Your task to perform on an android device: What's the latest video from Gameranx? Image 0: 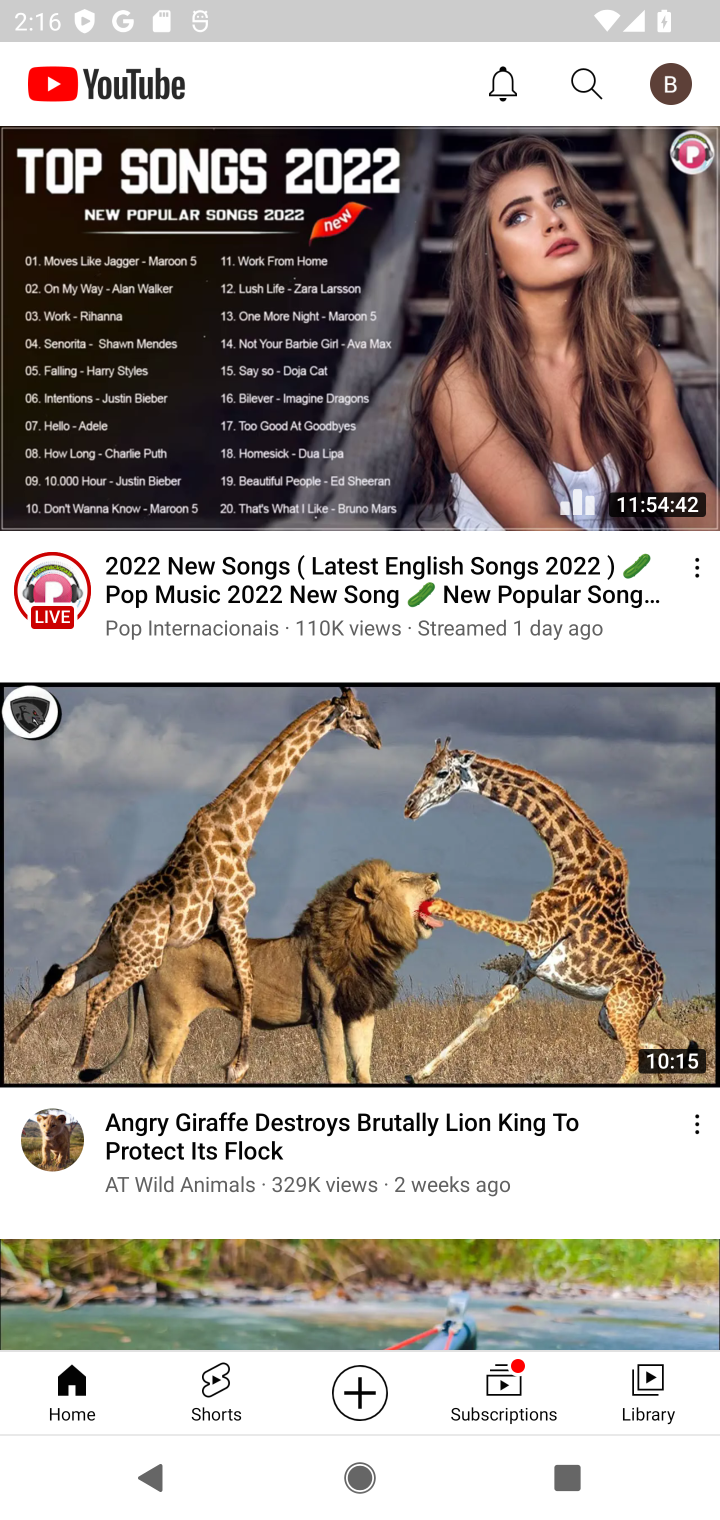
Step 0: click (586, 84)
Your task to perform on an android device: What's the latest video from Gameranx? Image 1: 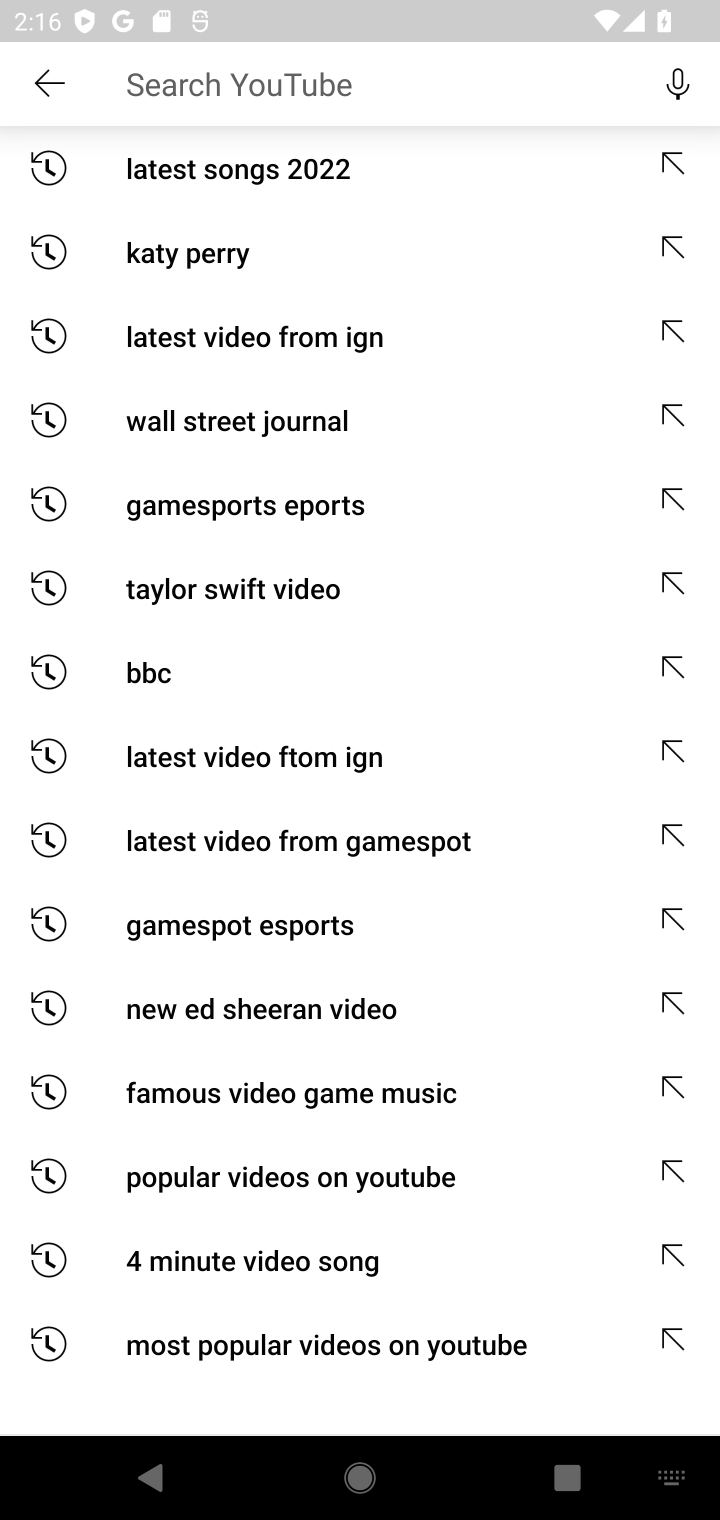
Step 1: click (203, 78)
Your task to perform on an android device: What's the latest video from Gameranx? Image 2: 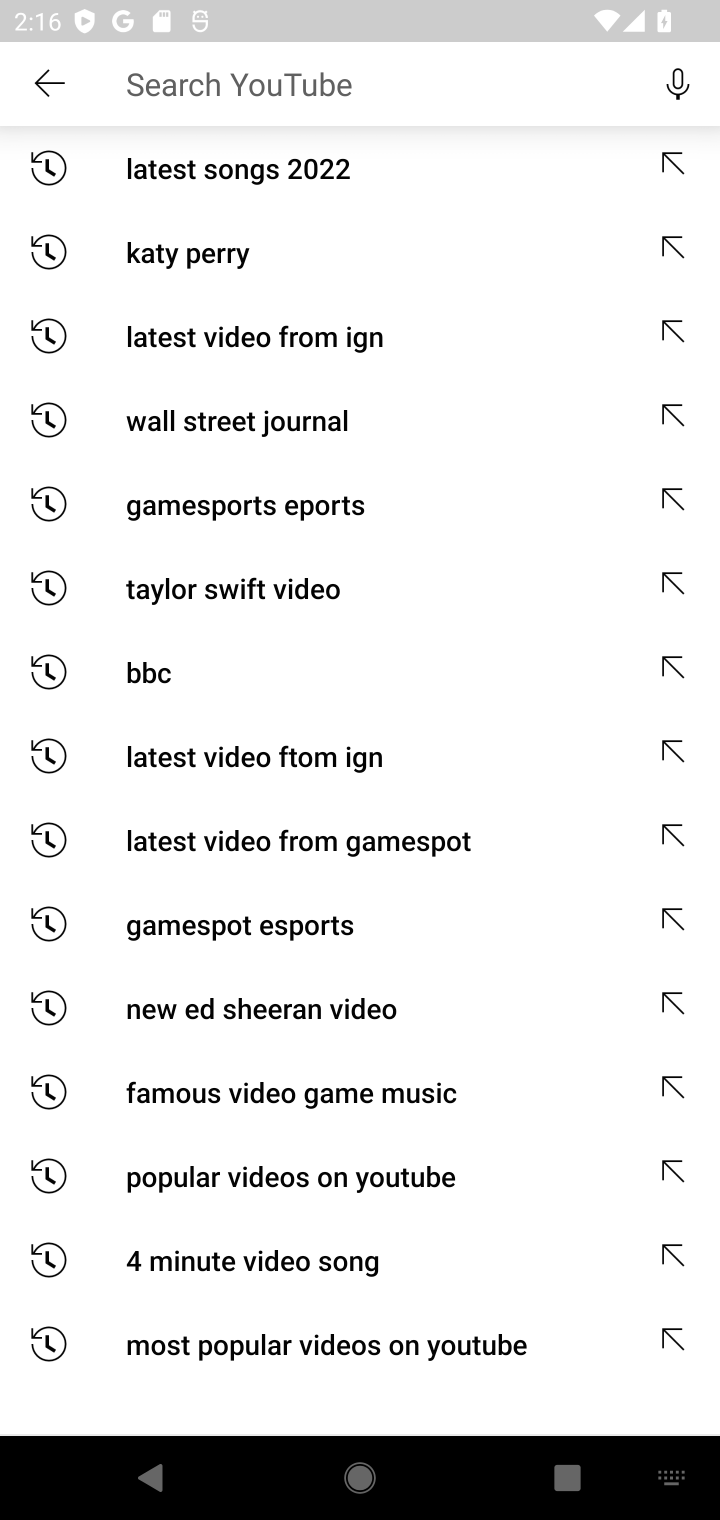
Step 2: type "Gameranx"
Your task to perform on an android device: What's the latest video from Gameranx? Image 3: 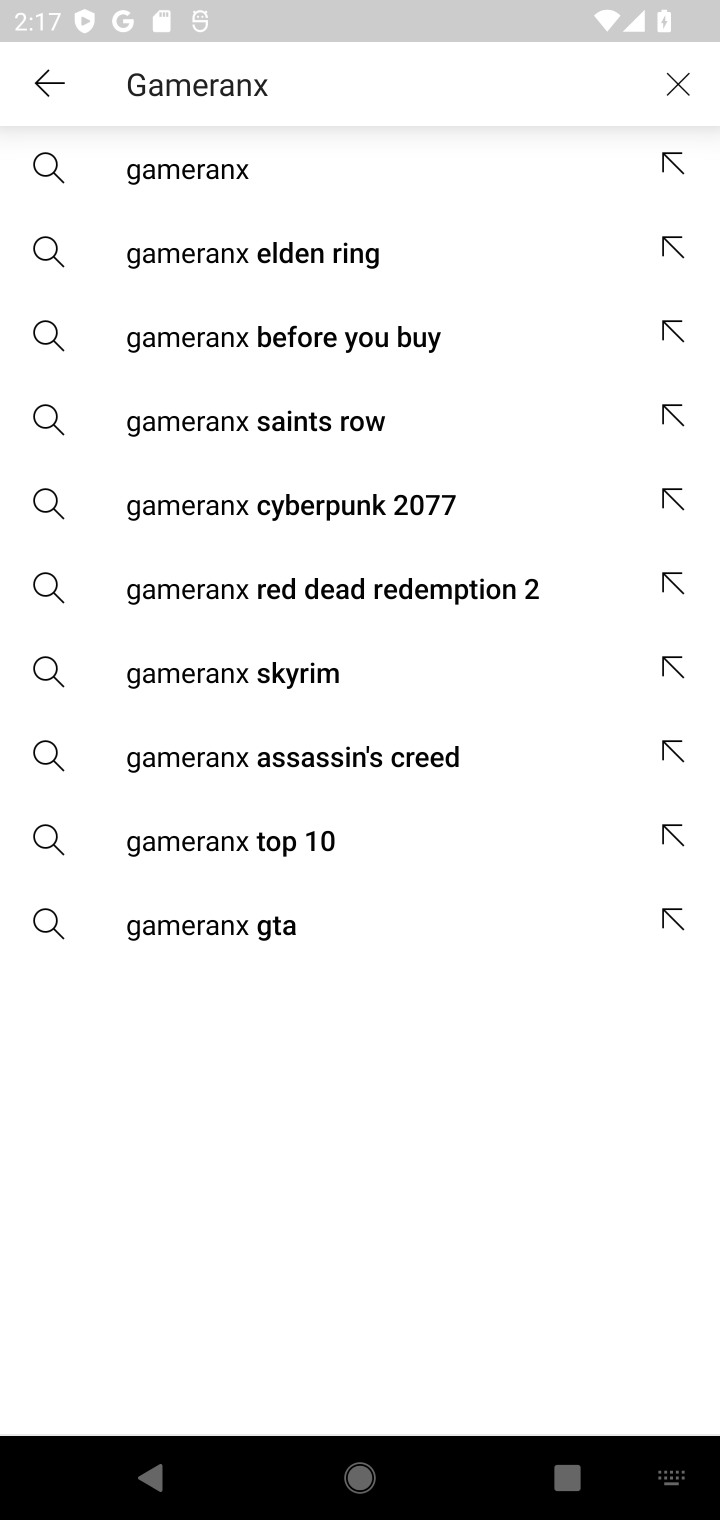
Step 3: click (224, 195)
Your task to perform on an android device: What's the latest video from Gameranx? Image 4: 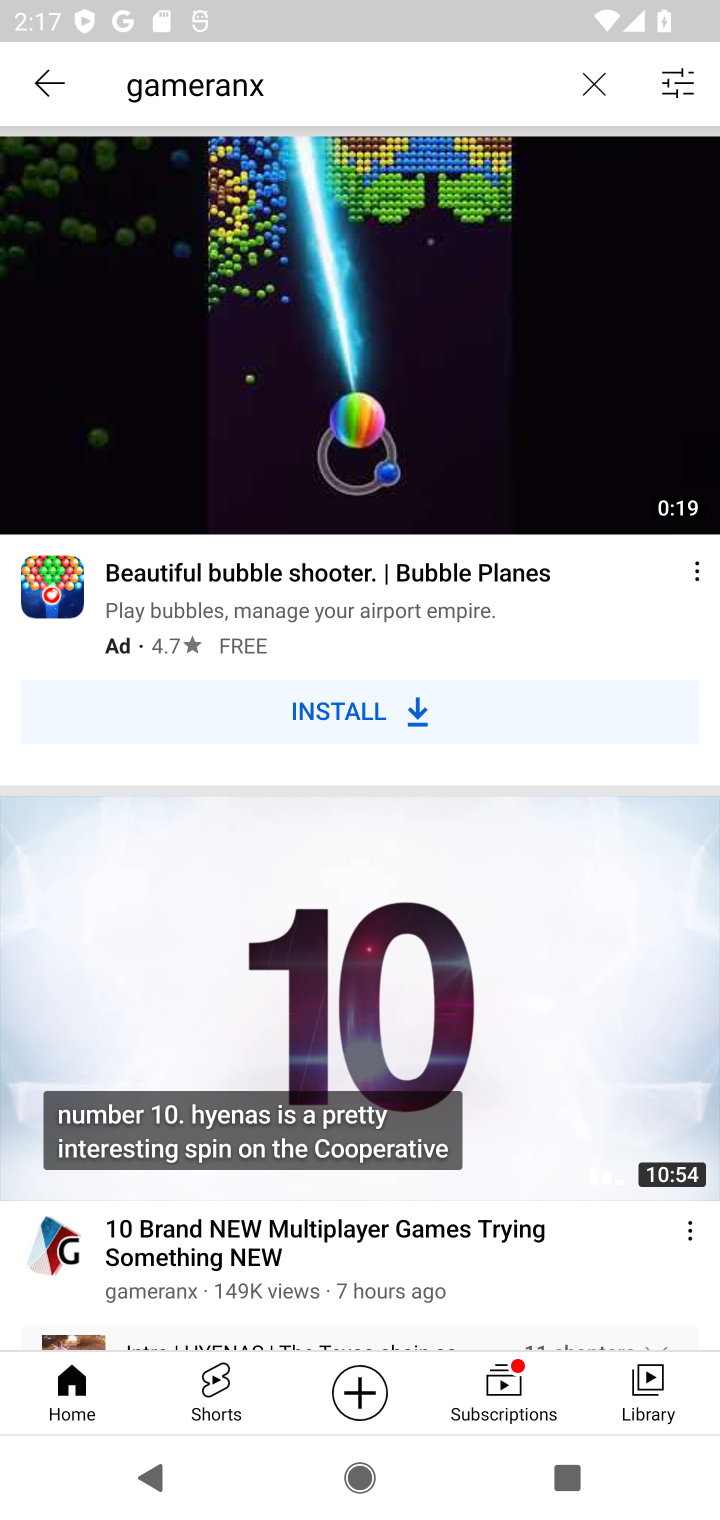
Step 4: drag from (321, 1074) to (465, 359)
Your task to perform on an android device: What's the latest video from Gameranx? Image 5: 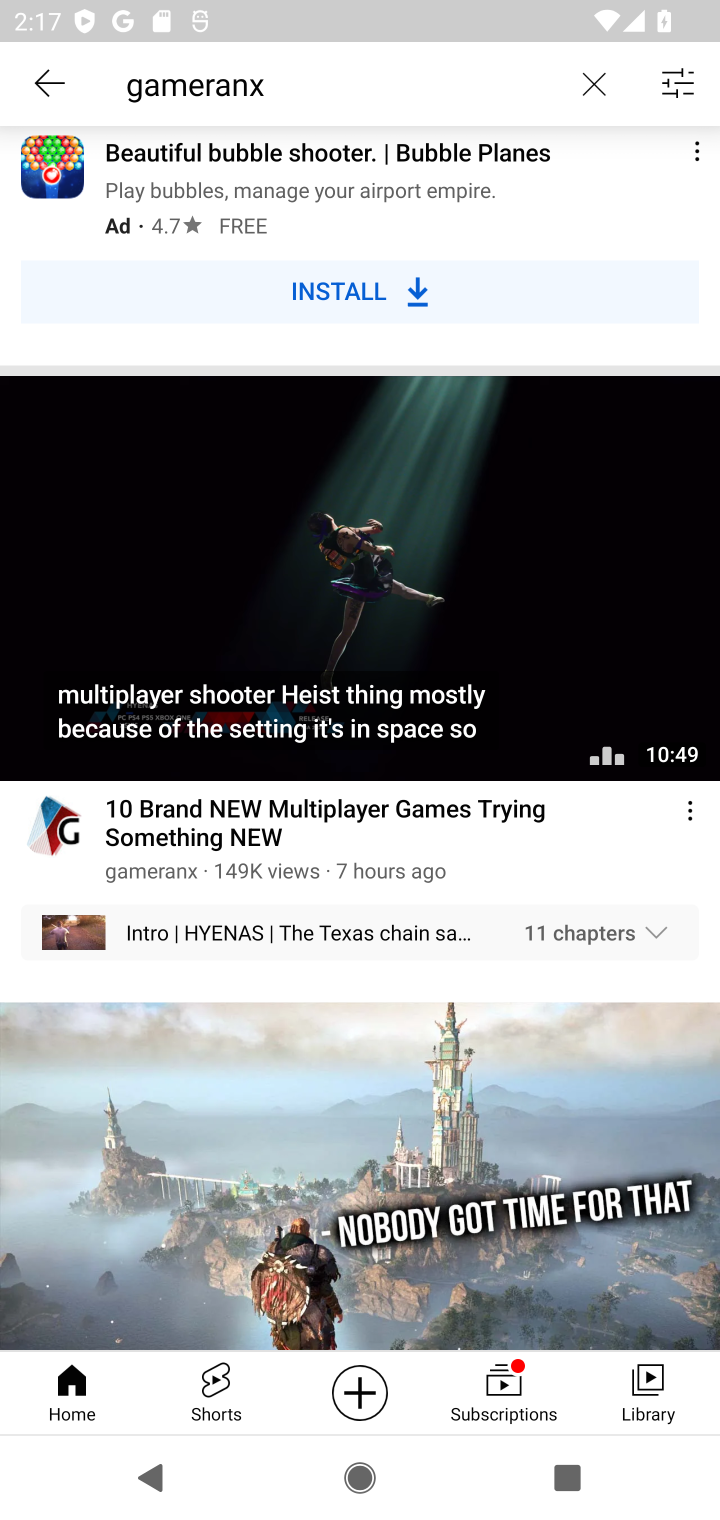
Step 5: drag from (409, 1149) to (473, 996)
Your task to perform on an android device: What's the latest video from Gameranx? Image 6: 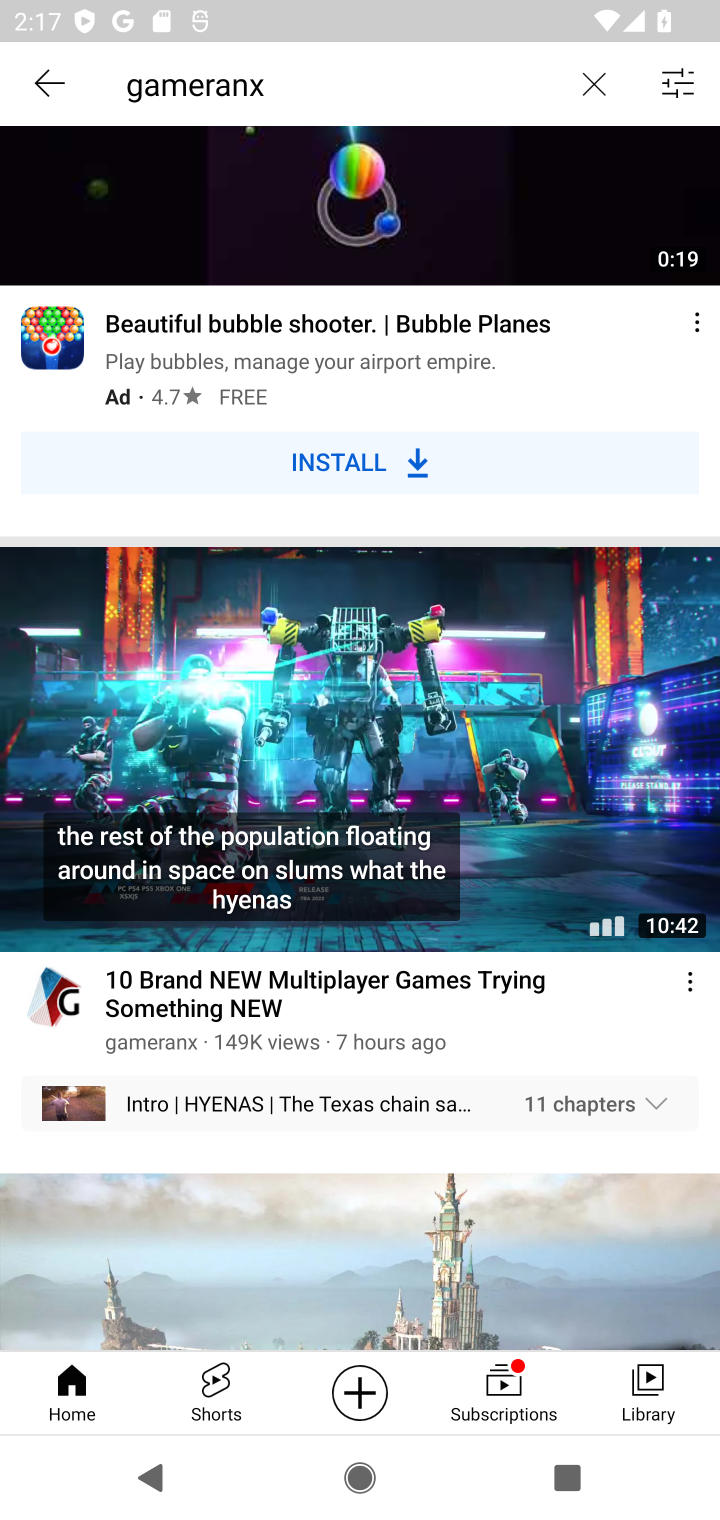
Step 6: click (308, 698)
Your task to perform on an android device: What's the latest video from Gameranx? Image 7: 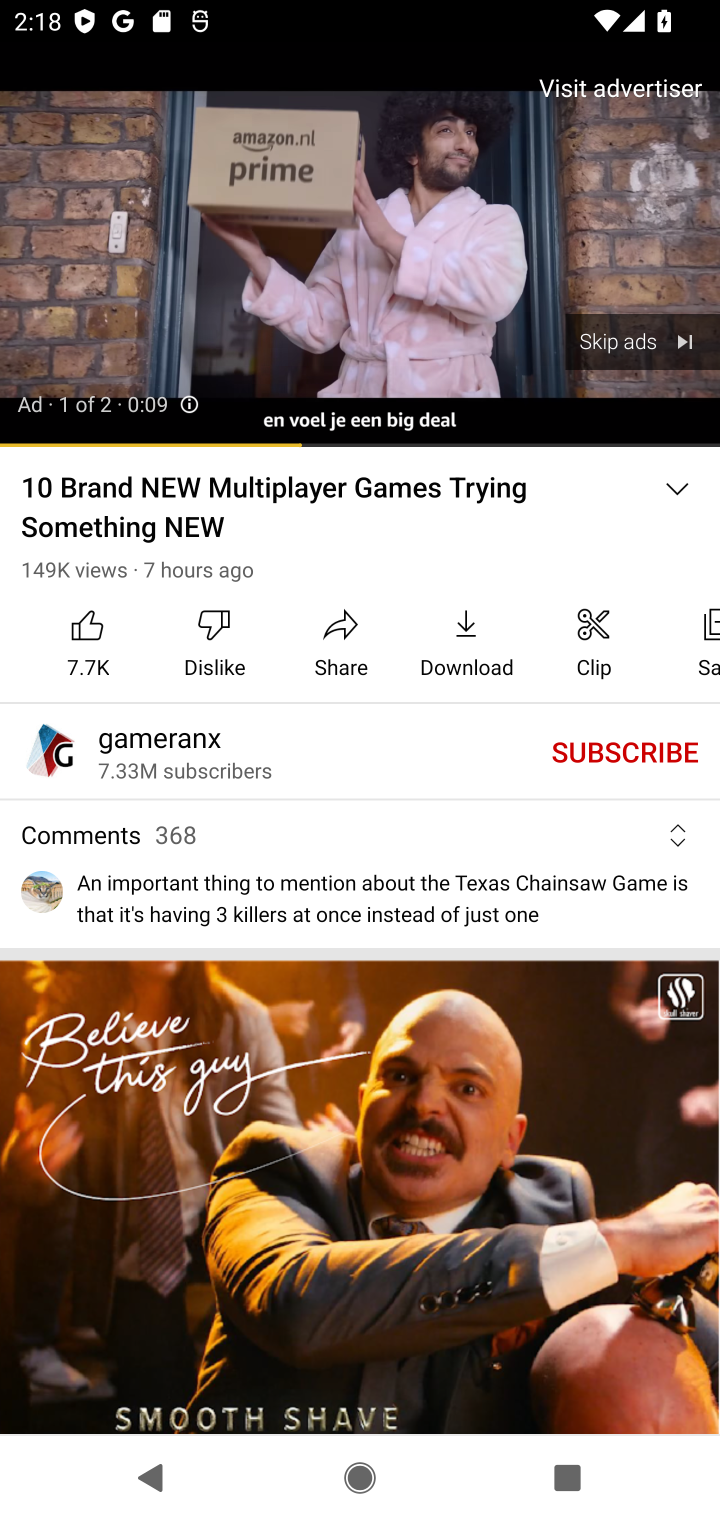
Step 7: click (607, 330)
Your task to perform on an android device: What's the latest video from Gameranx? Image 8: 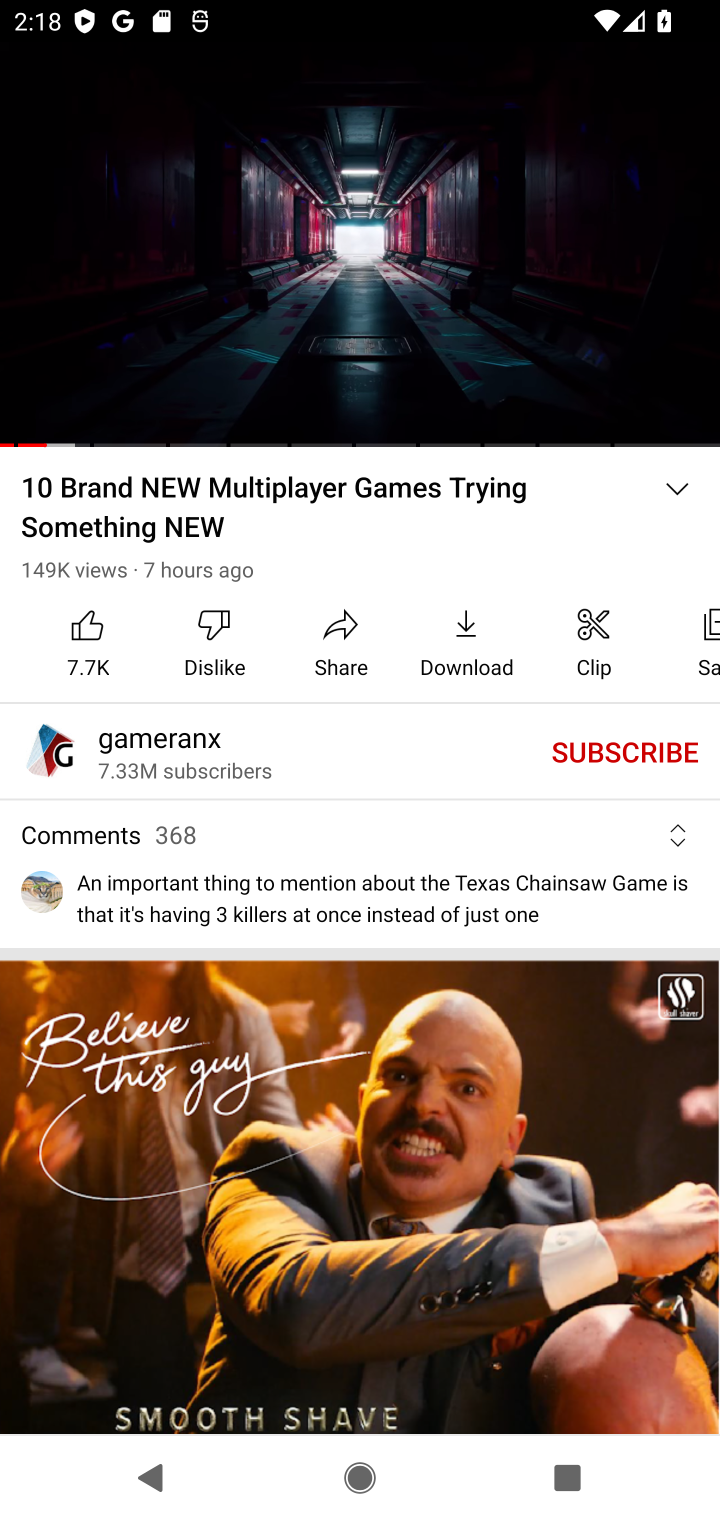
Step 8: click (289, 250)
Your task to perform on an android device: What's the latest video from Gameranx? Image 9: 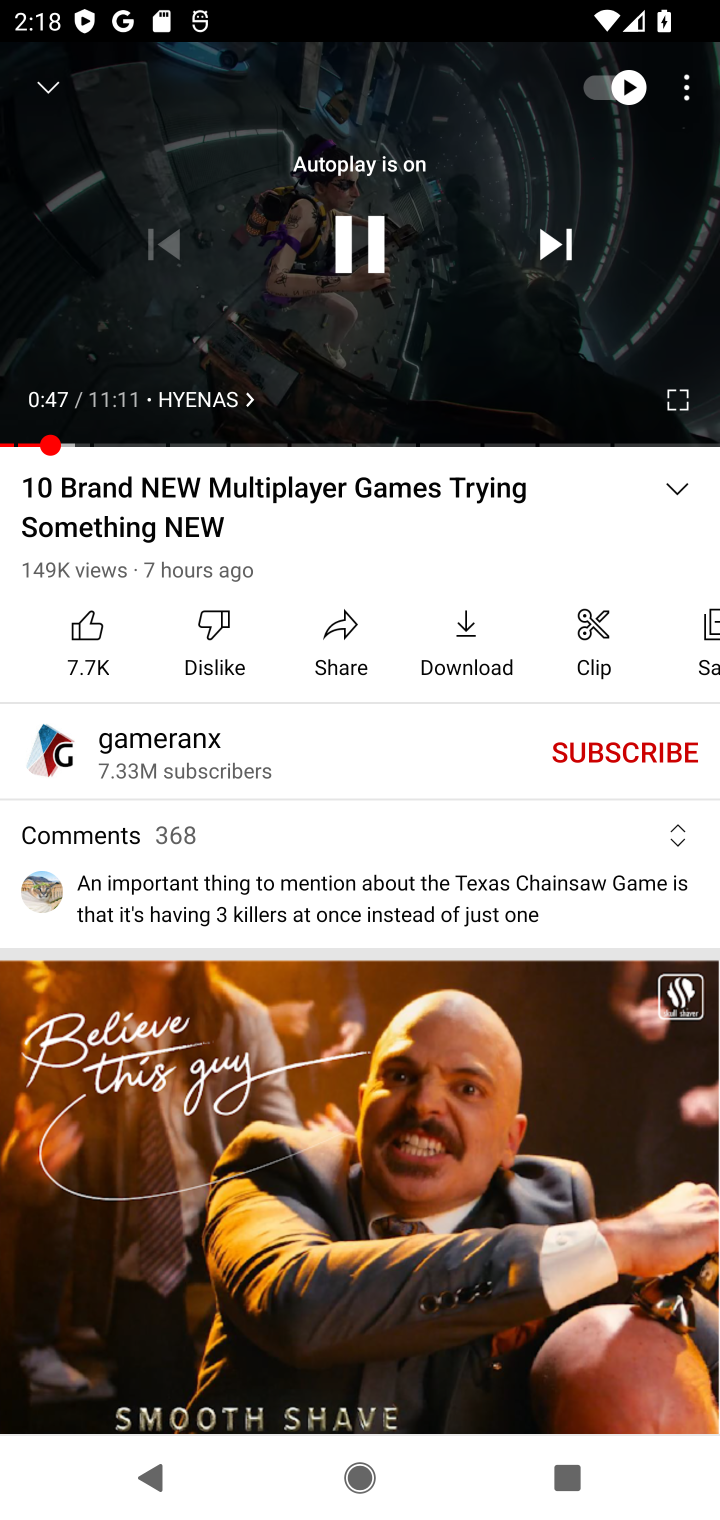
Step 9: click (363, 212)
Your task to perform on an android device: What's the latest video from Gameranx? Image 10: 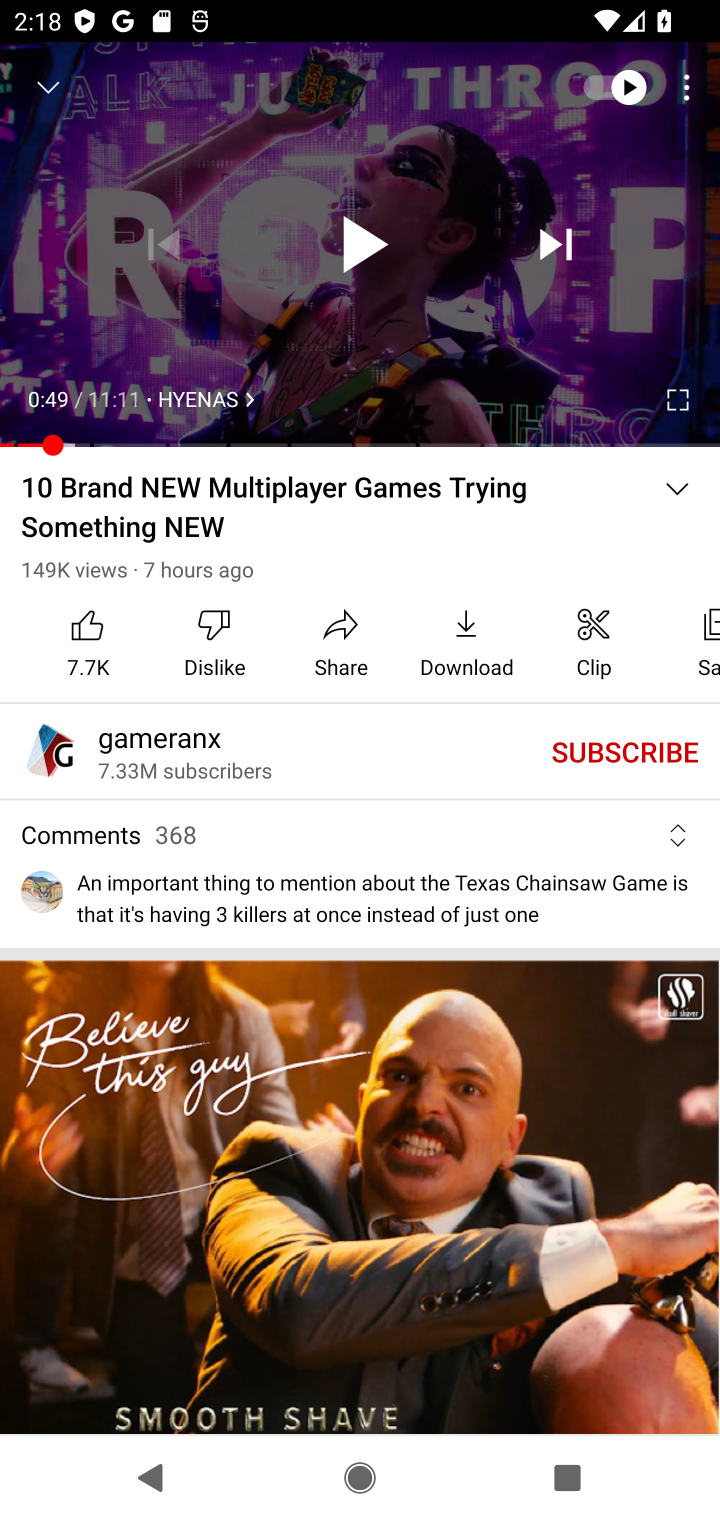
Step 10: task complete